Your task to perform on an android device: Open my contact list Image 0: 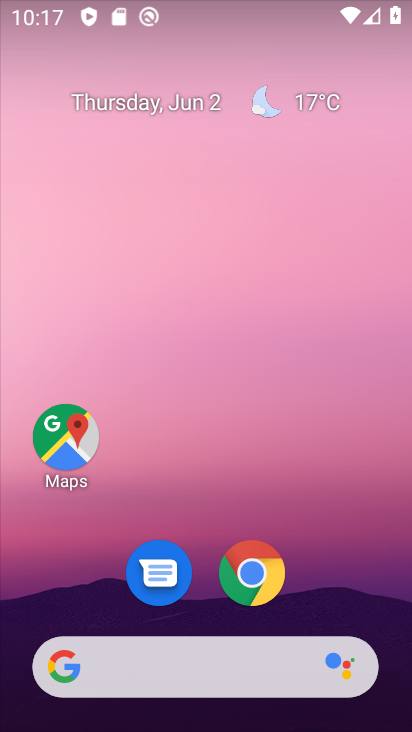
Step 0: task complete